Your task to perform on an android device: Open calendar and show me the first week of next month Image 0: 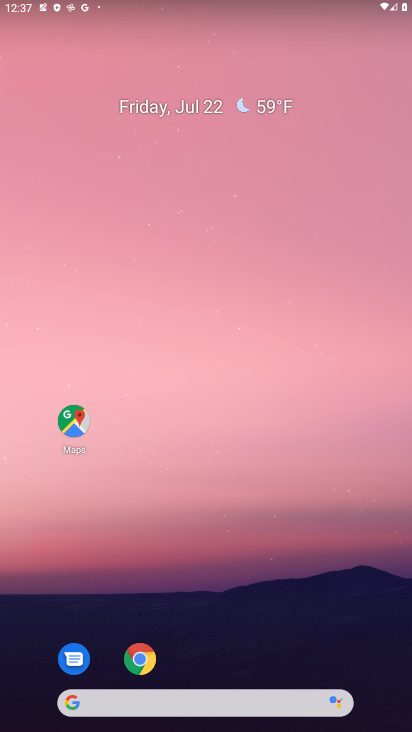
Step 0: drag from (261, 664) to (310, 5)
Your task to perform on an android device: Open calendar and show me the first week of next month Image 1: 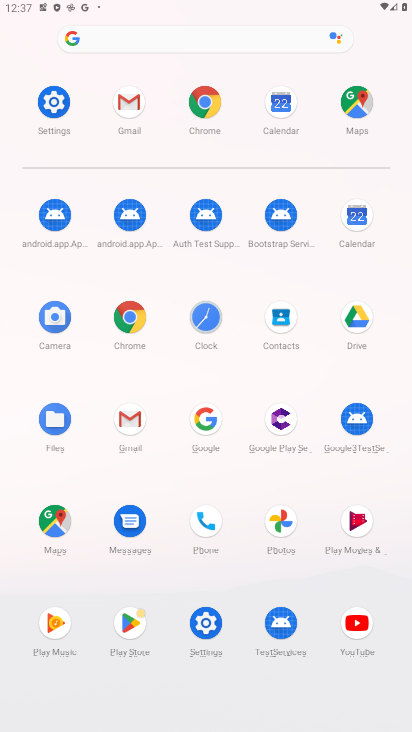
Step 1: click (354, 225)
Your task to perform on an android device: Open calendar and show me the first week of next month Image 2: 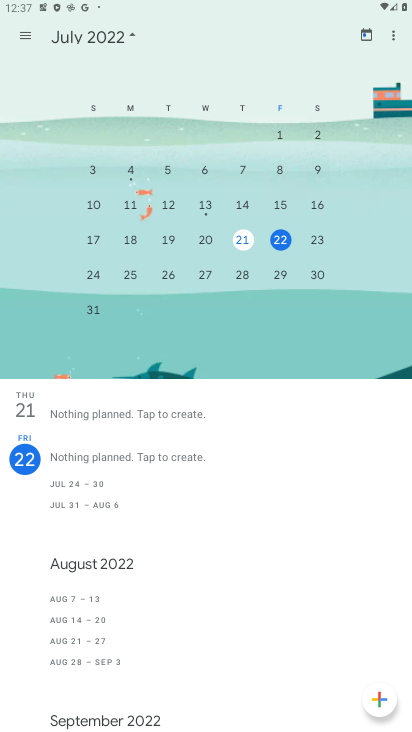
Step 2: drag from (309, 249) to (1, 275)
Your task to perform on an android device: Open calendar and show me the first week of next month Image 3: 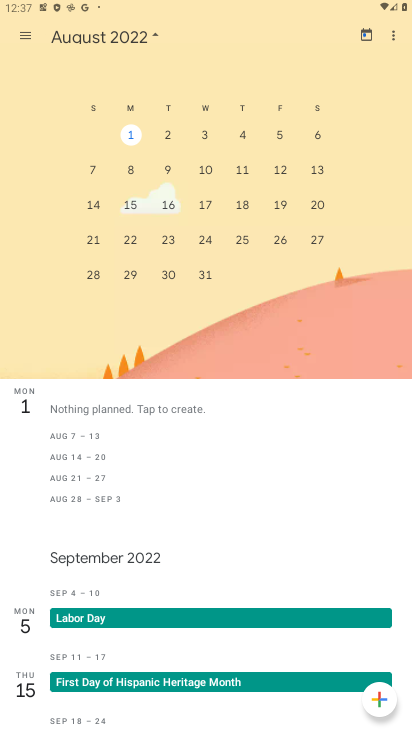
Step 3: click (93, 172)
Your task to perform on an android device: Open calendar and show me the first week of next month Image 4: 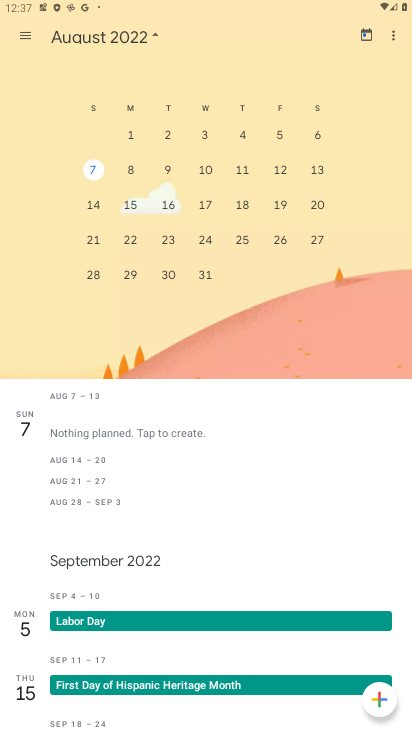
Step 4: task complete